Your task to perform on an android device: Open display settings Image 0: 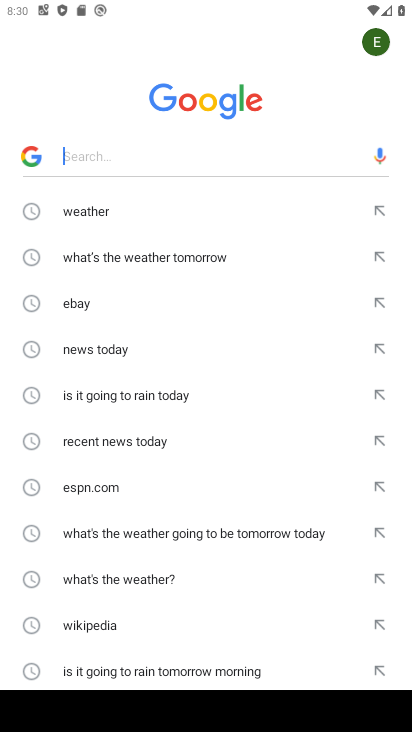
Step 0: press home button
Your task to perform on an android device: Open display settings Image 1: 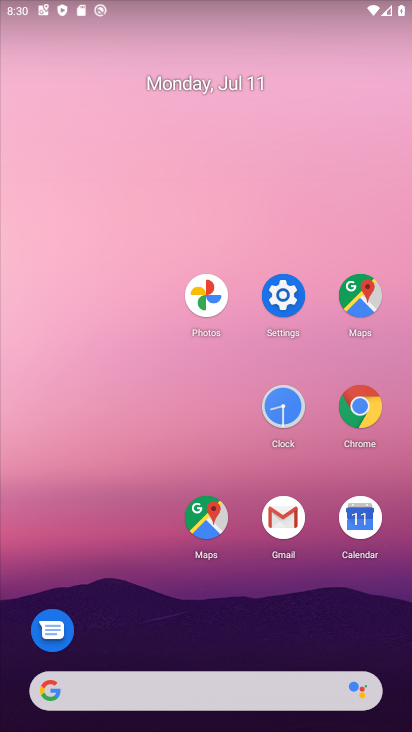
Step 1: click (295, 302)
Your task to perform on an android device: Open display settings Image 2: 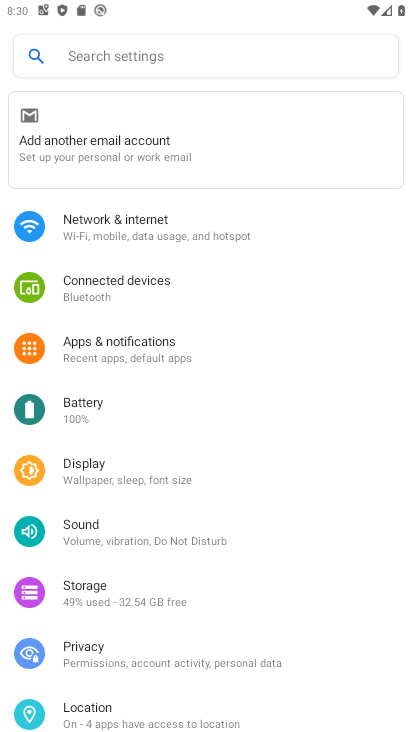
Step 2: click (135, 456)
Your task to perform on an android device: Open display settings Image 3: 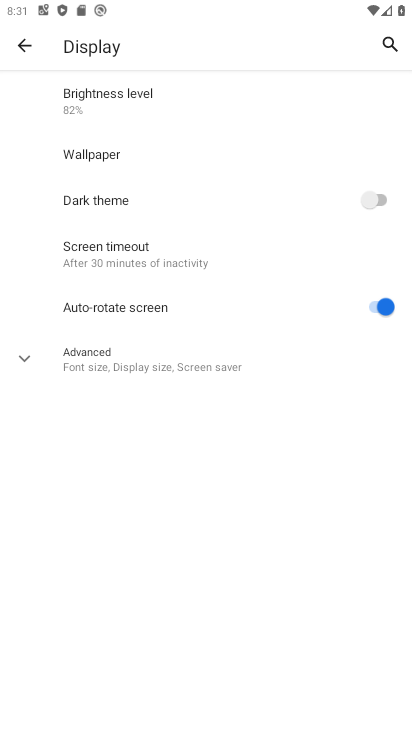
Step 3: task complete